Your task to perform on an android device: What is the news today? Image 0: 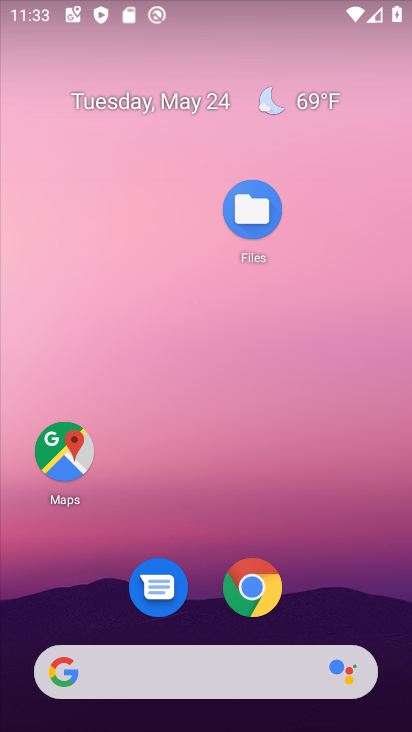
Step 0: click (257, 595)
Your task to perform on an android device: What is the news today? Image 1: 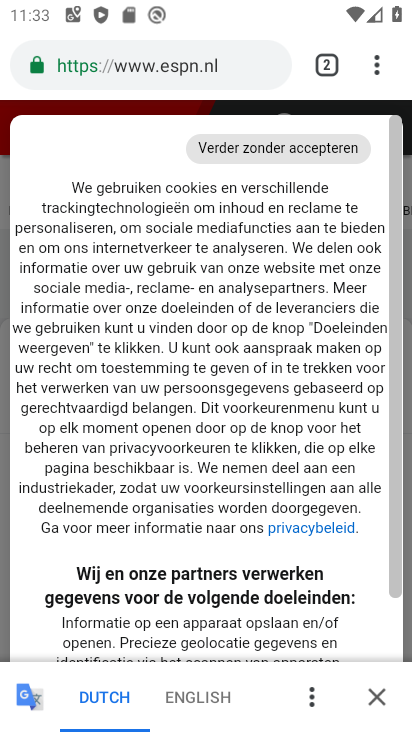
Step 1: click (330, 71)
Your task to perform on an android device: What is the news today? Image 2: 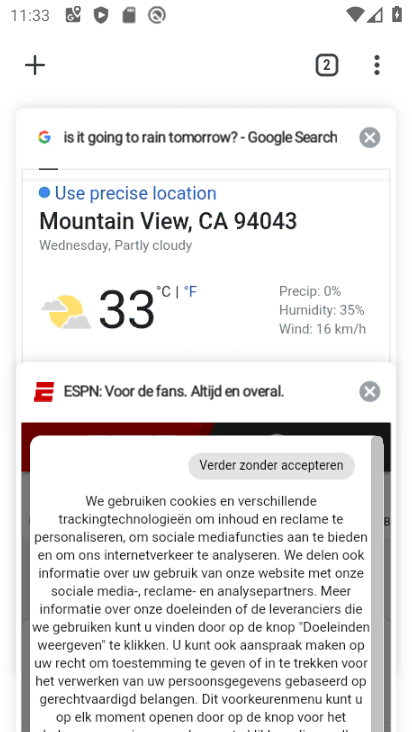
Step 2: click (29, 67)
Your task to perform on an android device: What is the news today? Image 3: 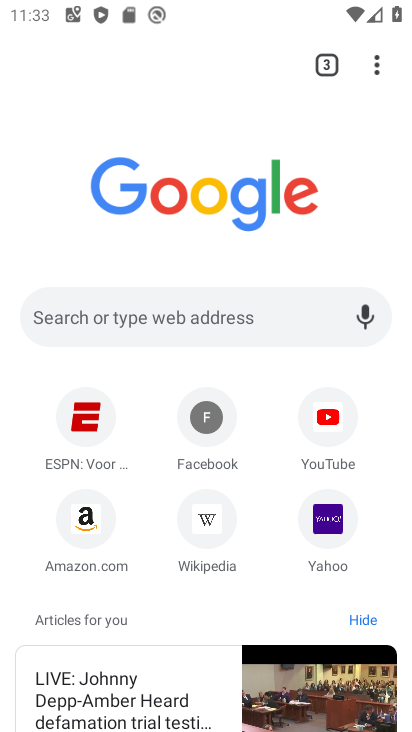
Step 3: click (124, 323)
Your task to perform on an android device: What is the news today? Image 4: 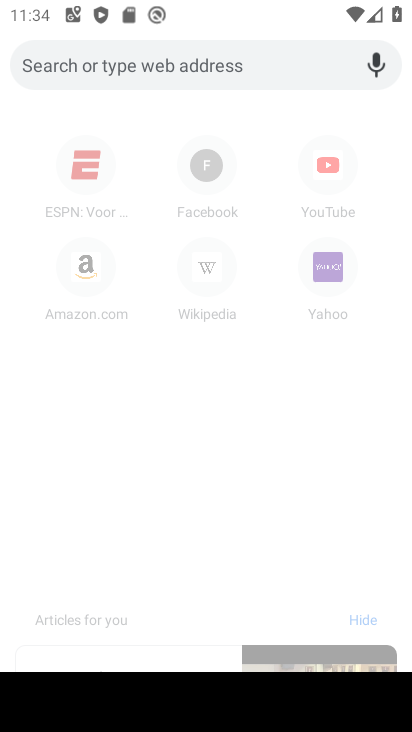
Step 4: type "what is the news today?"
Your task to perform on an android device: What is the news today? Image 5: 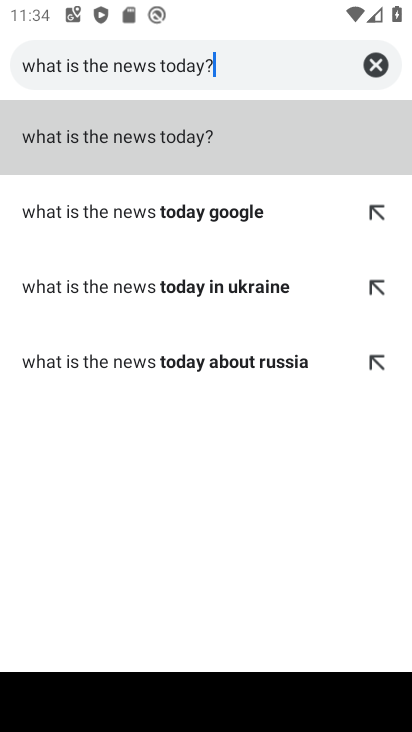
Step 5: click (196, 146)
Your task to perform on an android device: What is the news today? Image 6: 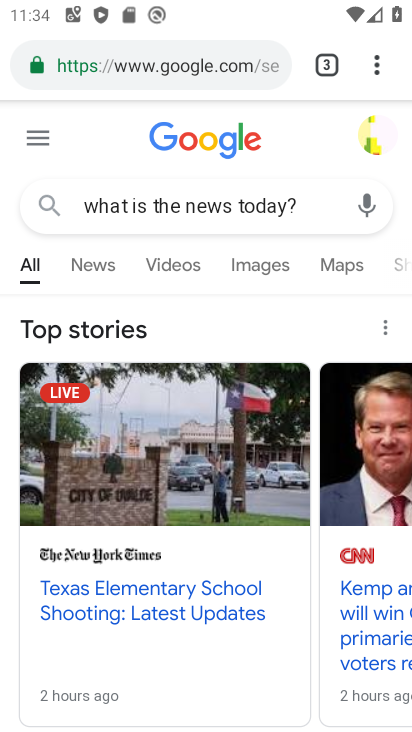
Step 6: click (95, 271)
Your task to perform on an android device: What is the news today? Image 7: 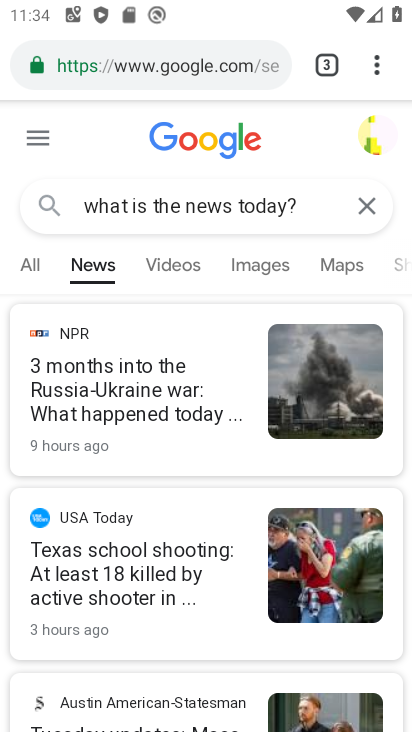
Step 7: task complete